Your task to perform on an android device: Check the news Image 0: 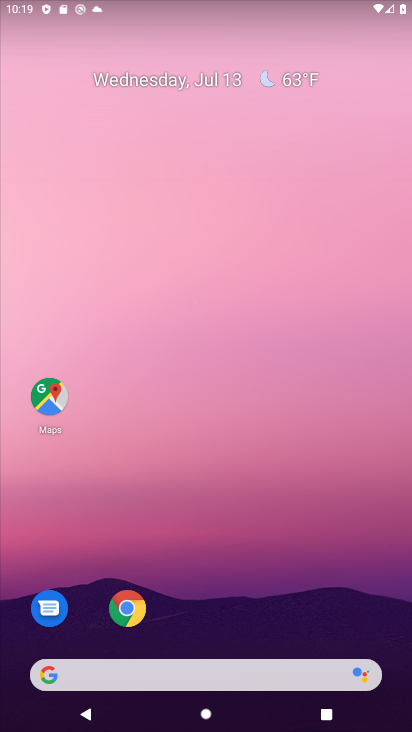
Step 0: drag from (0, 246) to (404, 249)
Your task to perform on an android device: Check the news Image 1: 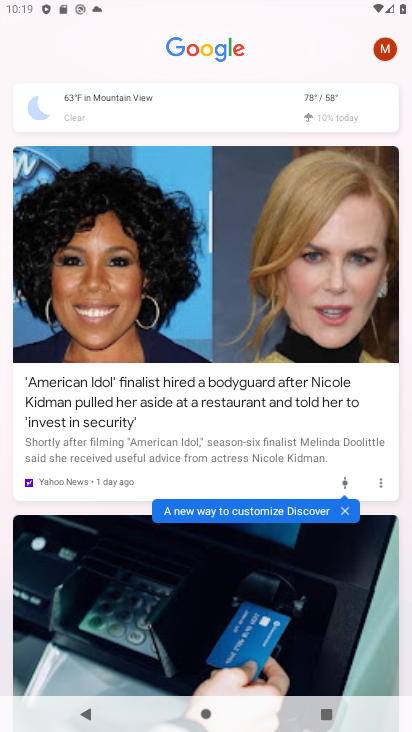
Step 1: task complete